Your task to perform on an android device: turn off location history Image 0: 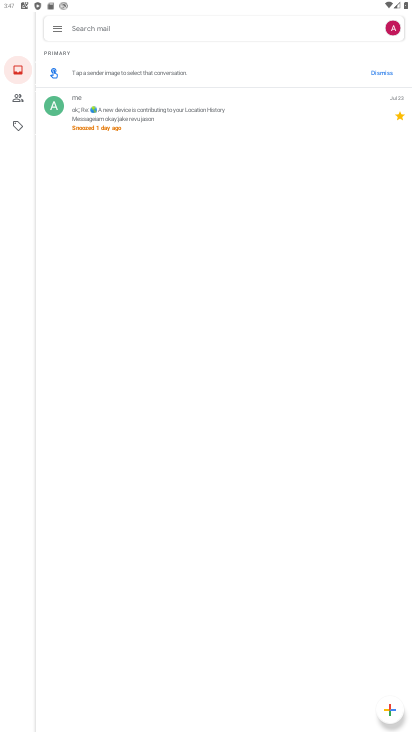
Step 0: press home button
Your task to perform on an android device: turn off location history Image 1: 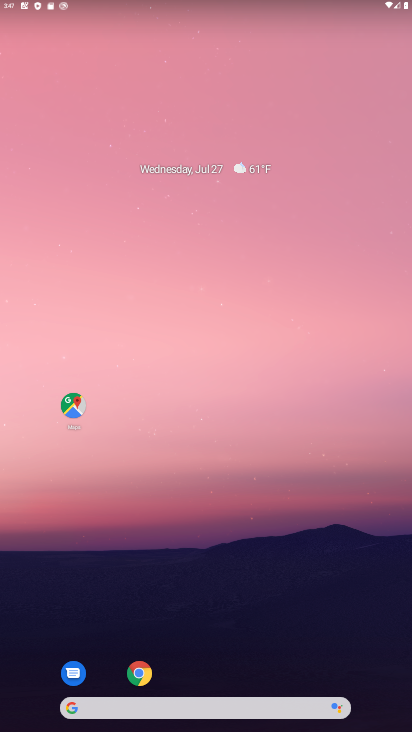
Step 1: drag from (347, 586) to (212, 33)
Your task to perform on an android device: turn off location history Image 2: 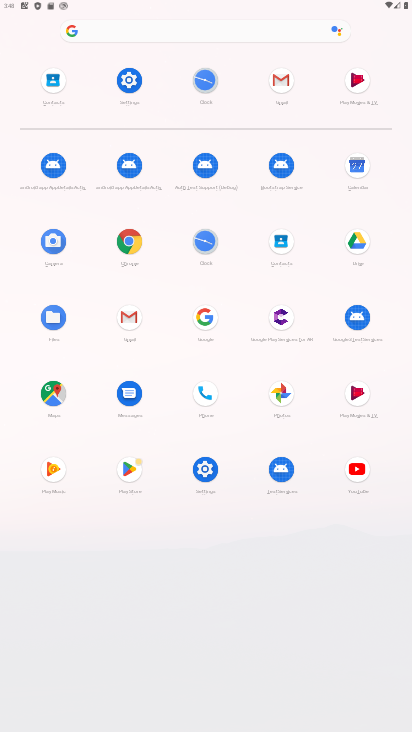
Step 2: click (214, 475)
Your task to perform on an android device: turn off location history Image 3: 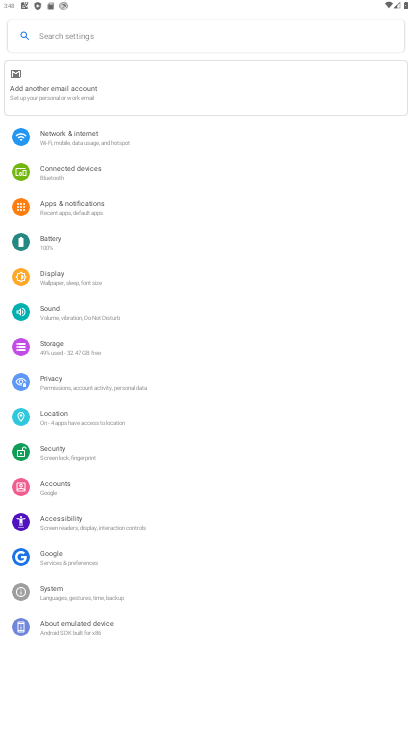
Step 3: click (47, 422)
Your task to perform on an android device: turn off location history Image 4: 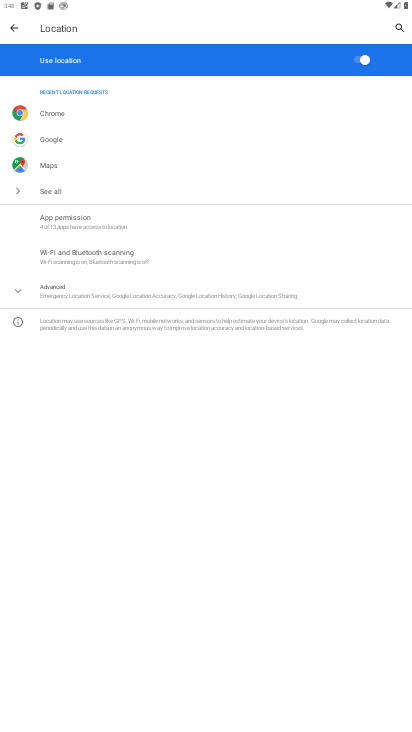
Step 4: click (108, 293)
Your task to perform on an android device: turn off location history Image 5: 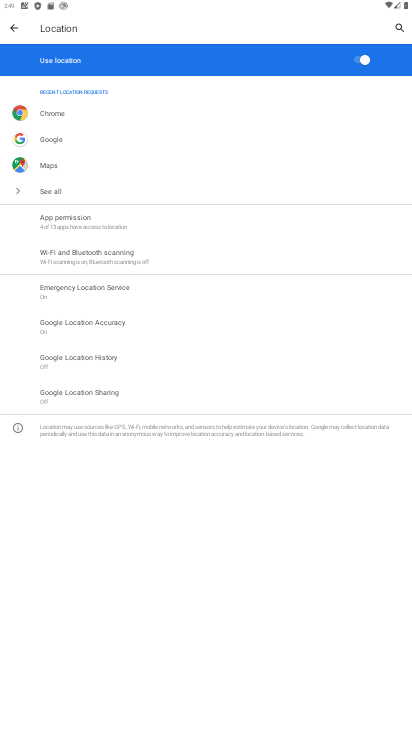
Step 5: click (118, 356)
Your task to perform on an android device: turn off location history Image 6: 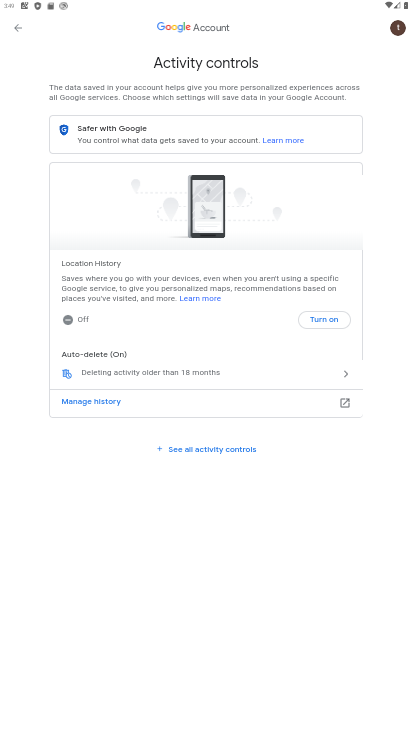
Step 6: task complete